Your task to perform on an android device: find snoozed emails in the gmail app Image 0: 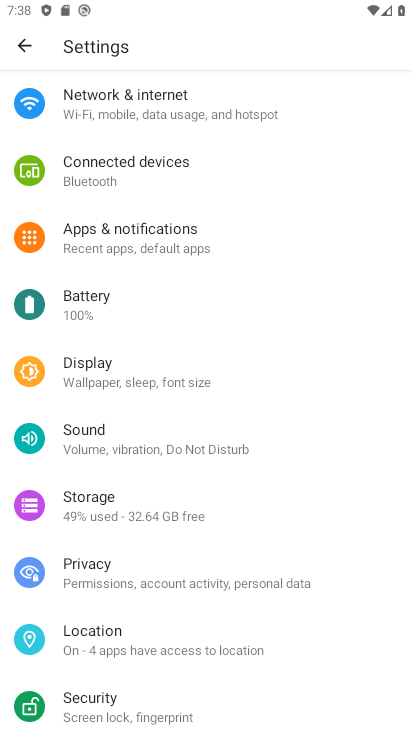
Step 0: press home button
Your task to perform on an android device: find snoozed emails in the gmail app Image 1: 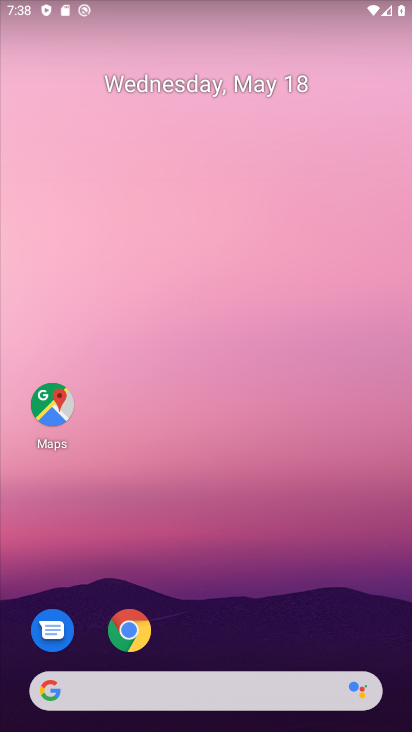
Step 1: drag from (232, 563) to (256, 50)
Your task to perform on an android device: find snoozed emails in the gmail app Image 2: 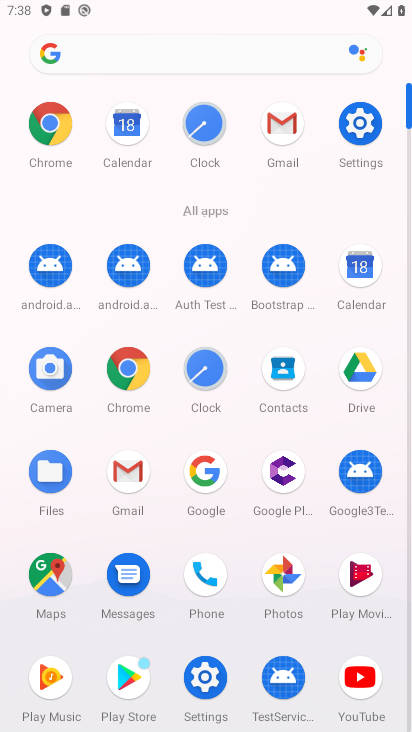
Step 2: click (281, 128)
Your task to perform on an android device: find snoozed emails in the gmail app Image 3: 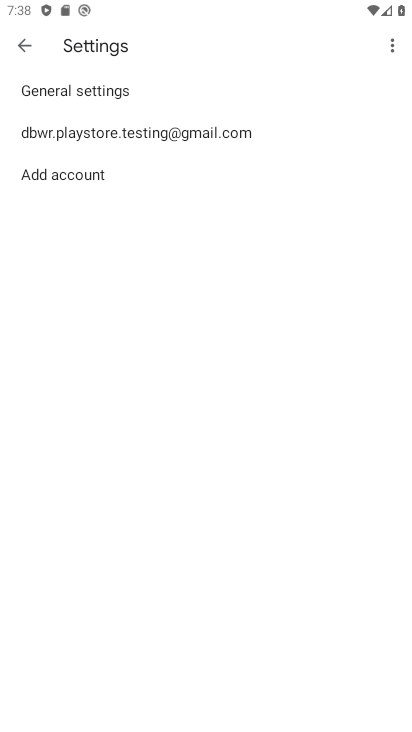
Step 3: click (18, 38)
Your task to perform on an android device: find snoozed emails in the gmail app Image 4: 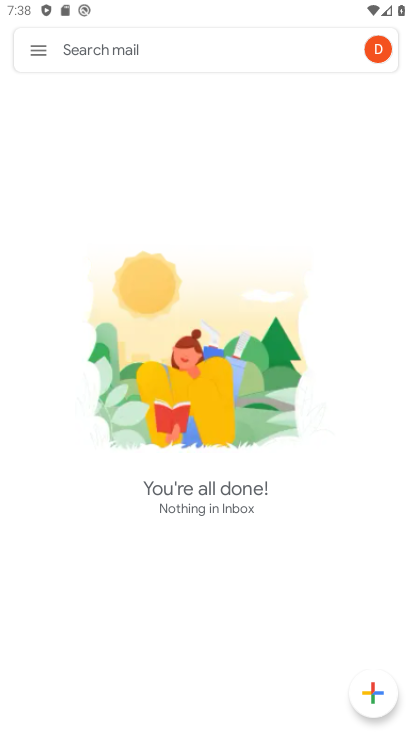
Step 4: click (36, 58)
Your task to perform on an android device: find snoozed emails in the gmail app Image 5: 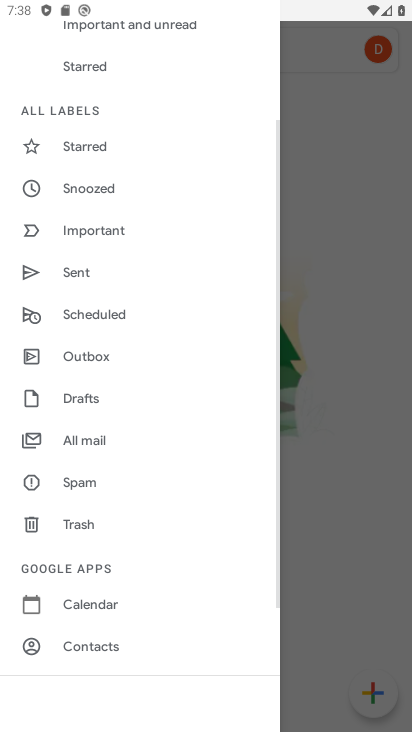
Step 5: click (76, 181)
Your task to perform on an android device: find snoozed emails in the gmail app Image 6: 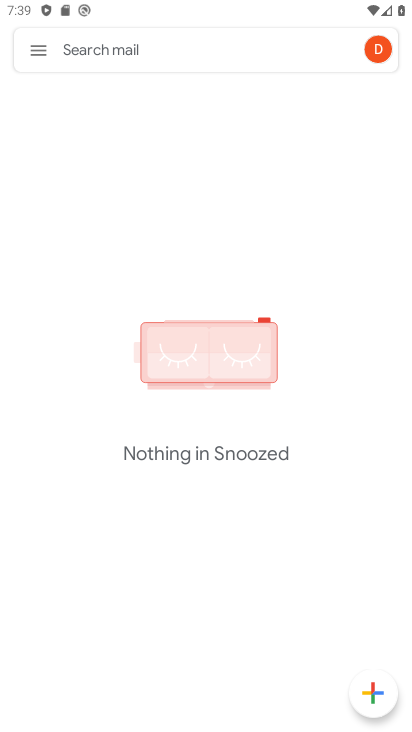
Step 6: task complete